Your task to perform on an android device: Open Chrome and go to the settings page Image 0: 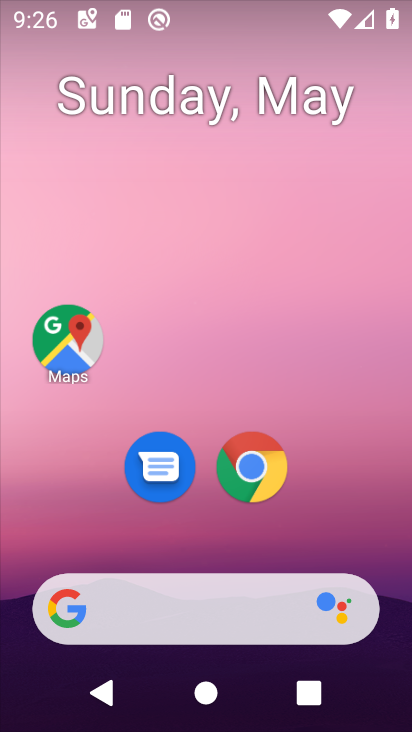
Step 0: drag from (359, 517) to (320, 137)
Your task to perform on an android device: Open Chrome and go to the settings page Image 1: 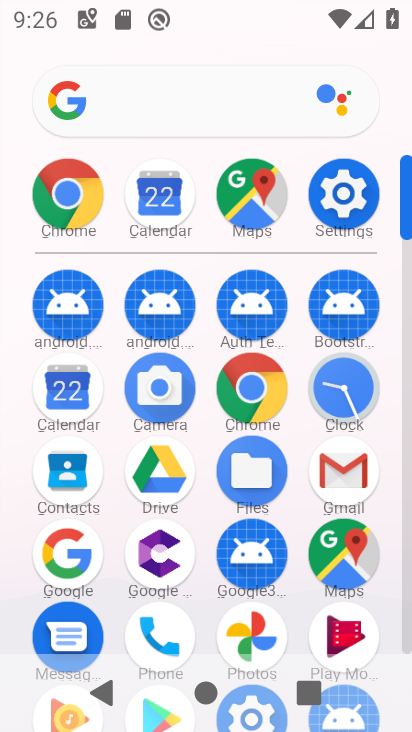
Step 1: click (259, 396)
Your task to perform on an android device: Open Chrome and go to the settings page Image 2: 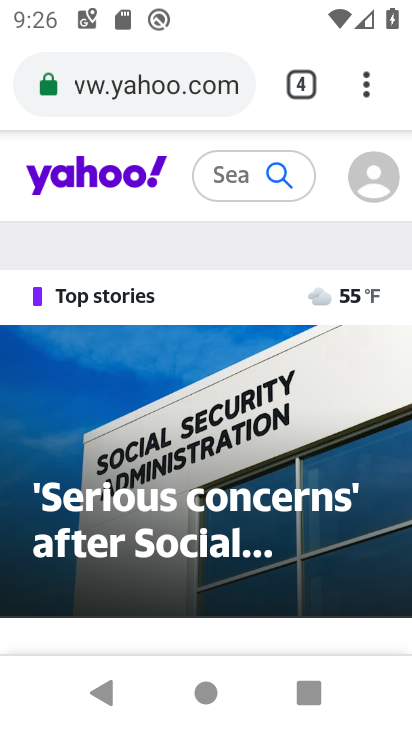
Step 2: drag from (367, 100) to (203, 514)
Your task to perform on an android device: Open Chrome and go to the settings page Image 3: 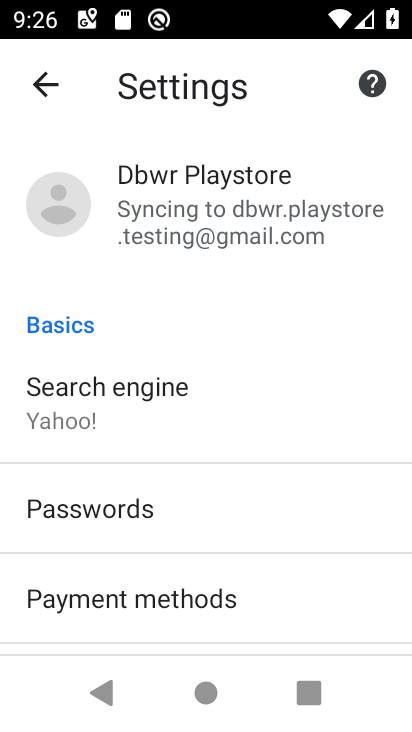
Step 3: drag from (290, 571) to (281, 325)
Your task to perform on an android device: Open Chrome and go to the settings page Image 4: 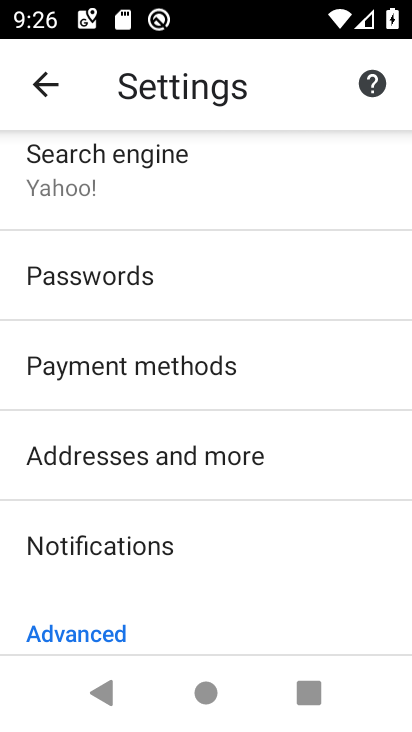
Step 4: drag from (286, 572) to (285, 301)
Your task to perform on an android device: Open Chrome and go to the settings page Image 5: 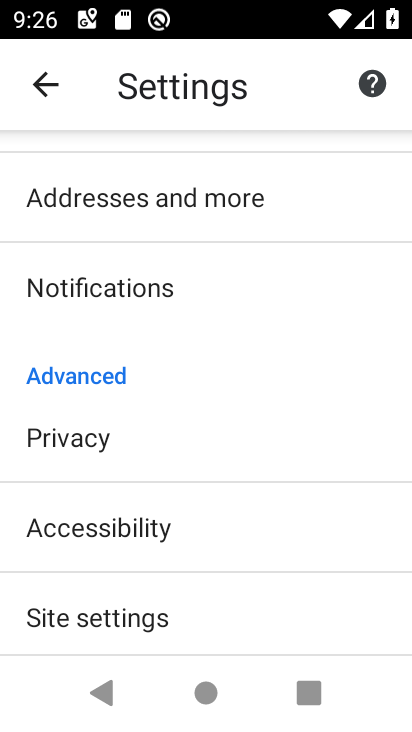
Step 5: click (193, 614)
Your task to perform on an android device: Open Chrome and go to the settings page Image 6: 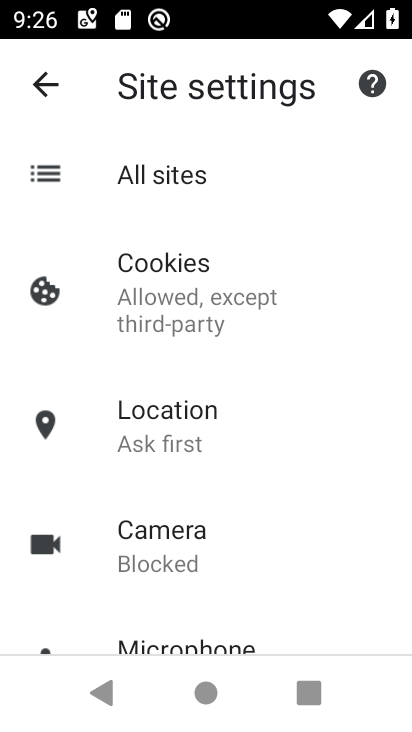
Step 6: task complete